Your task to perform on an android device: Show me the alarms in the clock app Image 0: 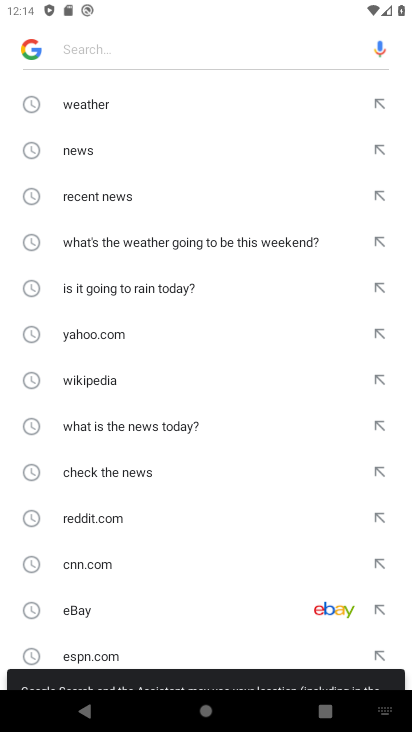
Step 0: press home button
Your task to perform on an android device: Show me the alarms in the clock app Image 1: 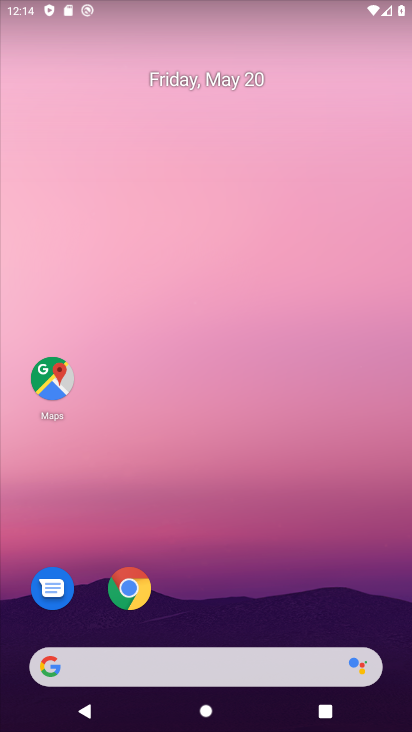
Step 1: drag from (384, 625) to (316, 80)
Your task to perform on an android device: Show me the alarms in the clock app Image 2: 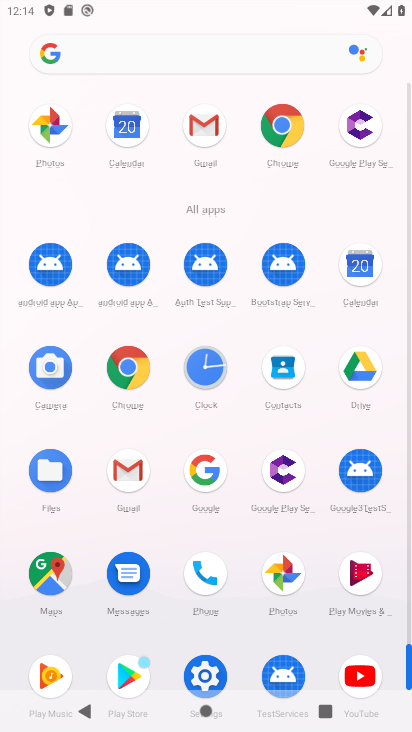
Step 2: click (204, 362)
Your task to perform on an android device: Show me the alarms in the clock app Image 3: 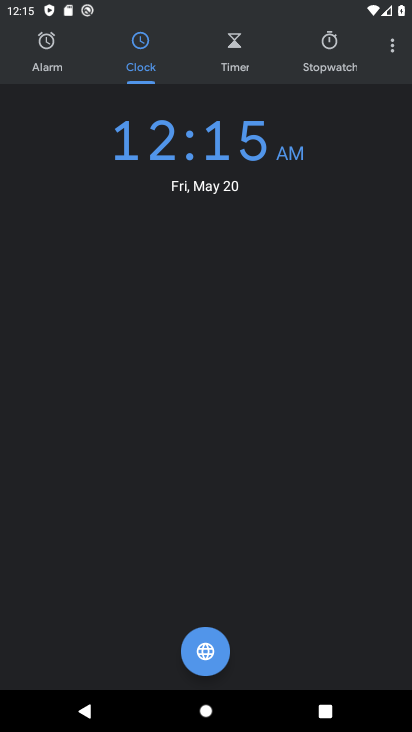
Step 3: click (45, 43)
Your task to perform on an android device: Show me the alarms in the clock app Image 4: 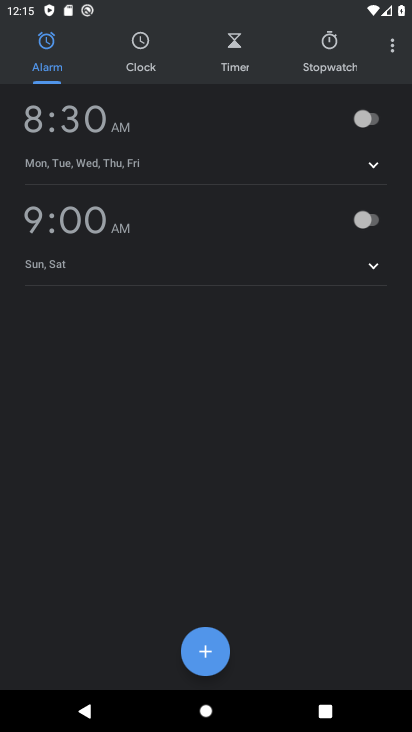
Step 4: task complete